Your task to perform on an android device: turn on the 24-hour format for clock Image 0: 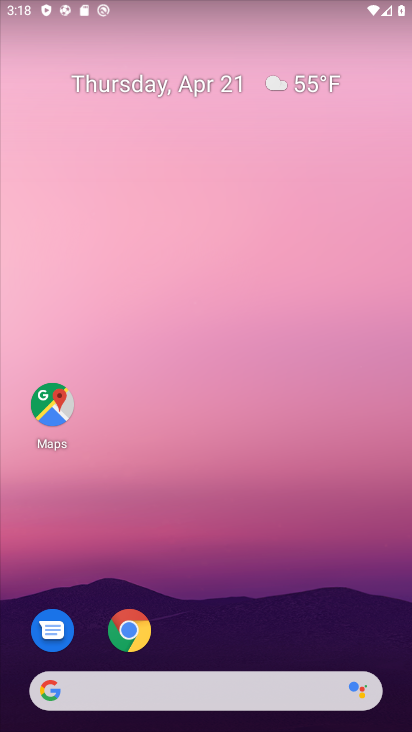
Step 0: drag from (178, 639) to (349, 15)
Your task to perform on an android device: turn on the 24-hour format for clock Image 1: 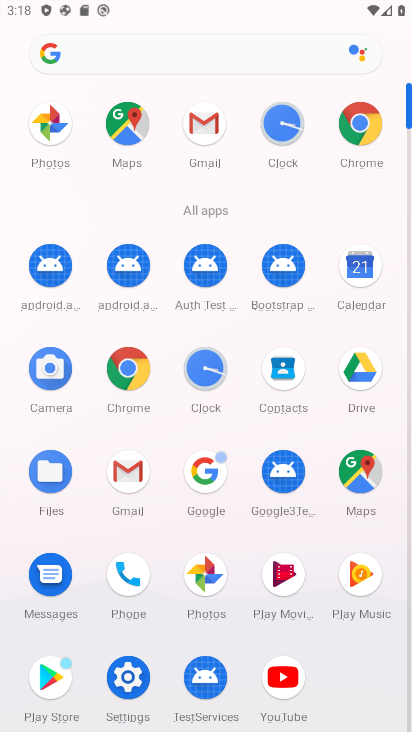
Step 1: click (194, 375)
Your task to perform on an android device: turn on the 24-hour format for clock Image 2: 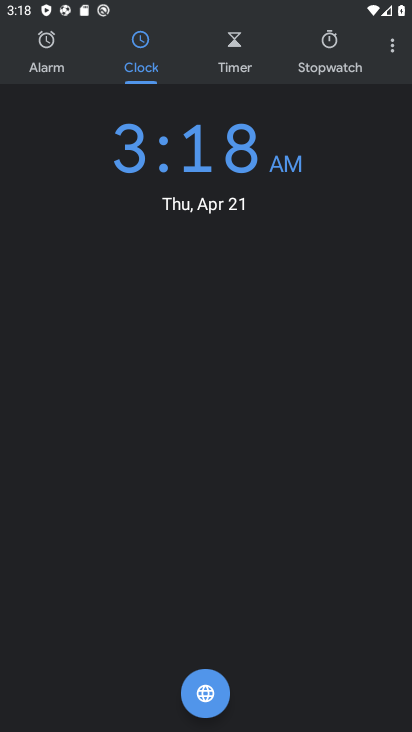
Step 2: press home button
Your task to perform on an android device: turn on the 24-hour format for clock Image 3: 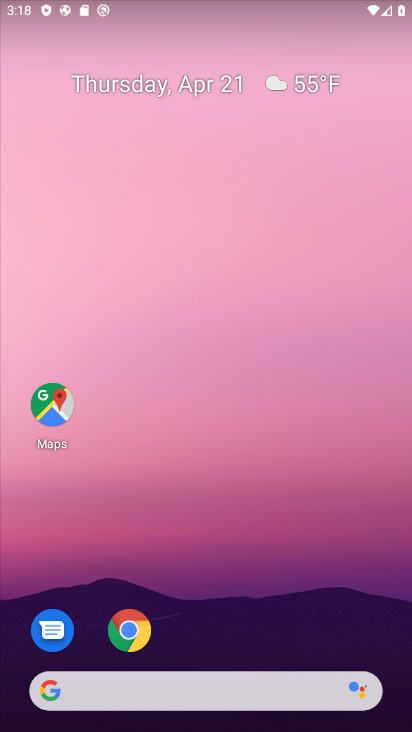
Step 3: drag from (237, 602) to (395, 4)
Your task to perform on an android device: turn on the 24-hour format for clock Image 4: 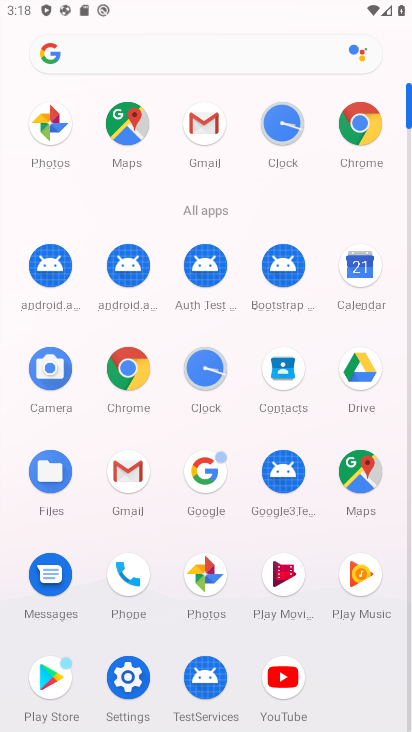
Step 4: click (131, 662)
Your task to perform on an android device: turn on the 24-hour format for clock Image 5: 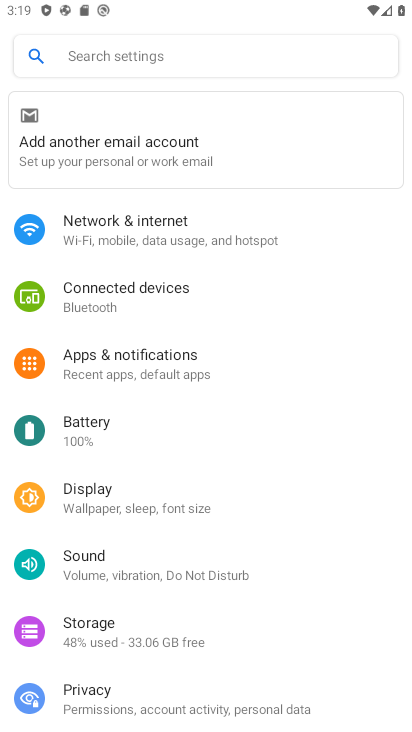
Step 5: drag from (152, 579) to (201, 249)
Your task to perform on an android device: turn on the 24-hour format for clock Image 6: 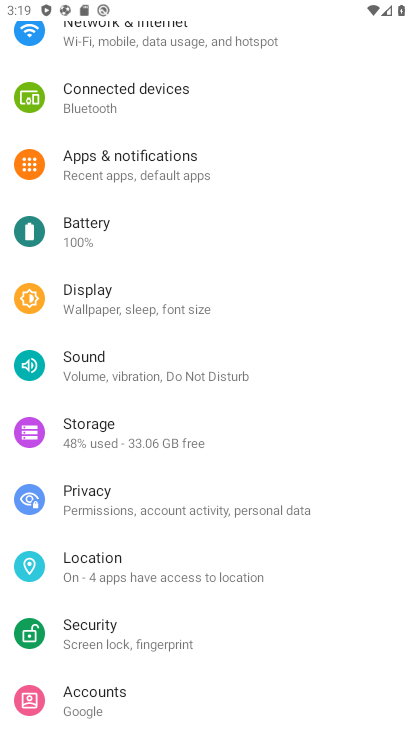
Step 6: drag from (113, 645) to (203, 273)
Your task to perform on an android device: turn on the 24-hour format for clock Image 7: 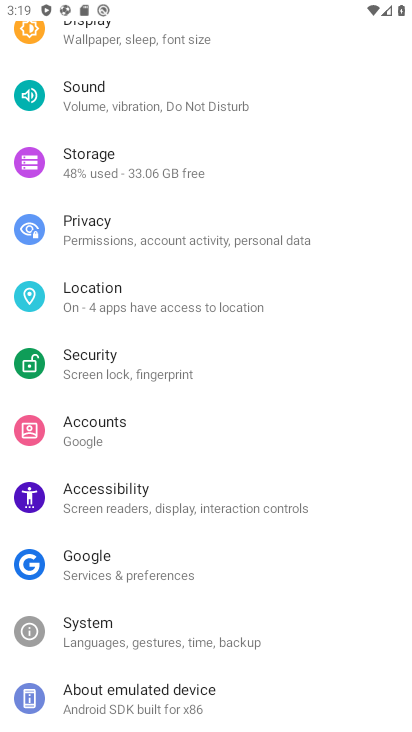
Step 7: click (108, 634)
Your task to perform on an android device: turn on the 24-hour format for clock Image 8: 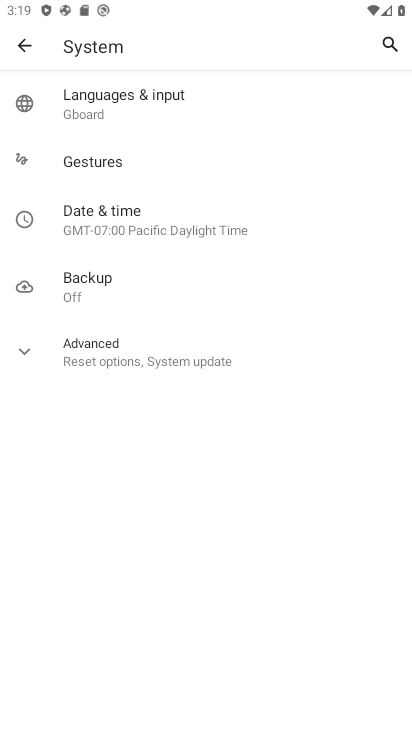
Step 8: click (179, 233)
Your task to perform on an android device: turn on the 24-hour format for clock Image 9: 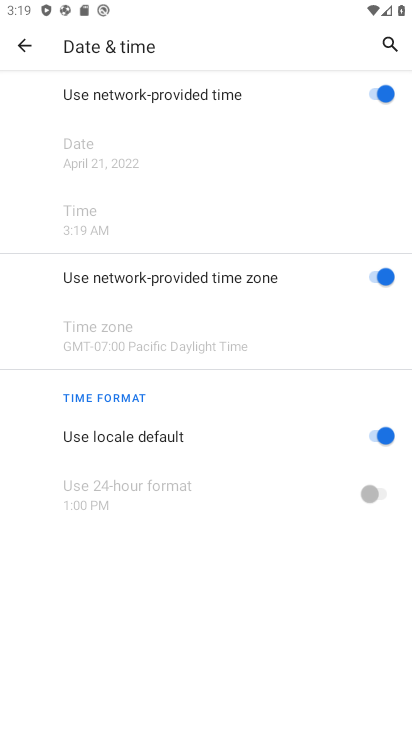
Step 9: click (372, 439)
Your task to perform on an android device: turn on the 24-hour format for clock Image 10: 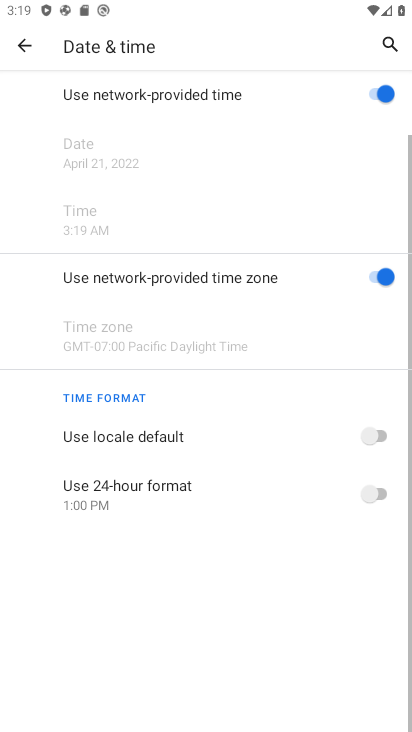
Step 10: click (385, 495)
Your task to perform on an android device: turn on the 24-hour format for clock Image 11: 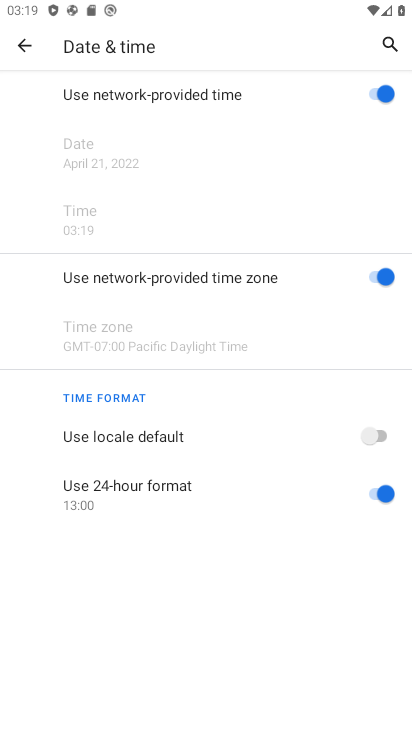
Step 11: task complete